Your task to perform on an android device: What's the weather? Image 0: 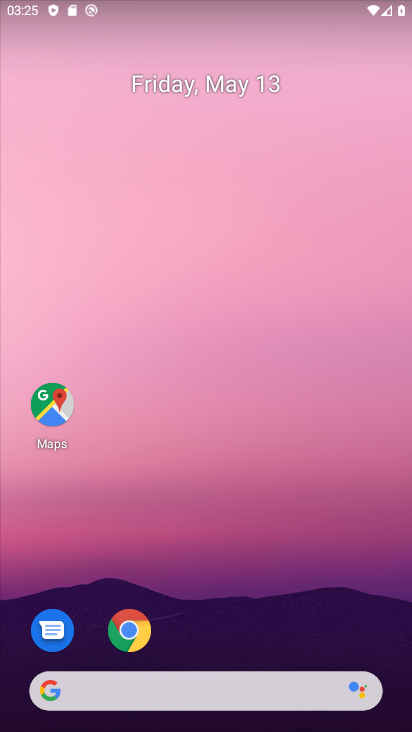
Step 0: click (201, 689)
Your task to perform on an android device: What's the weather? Image 1: 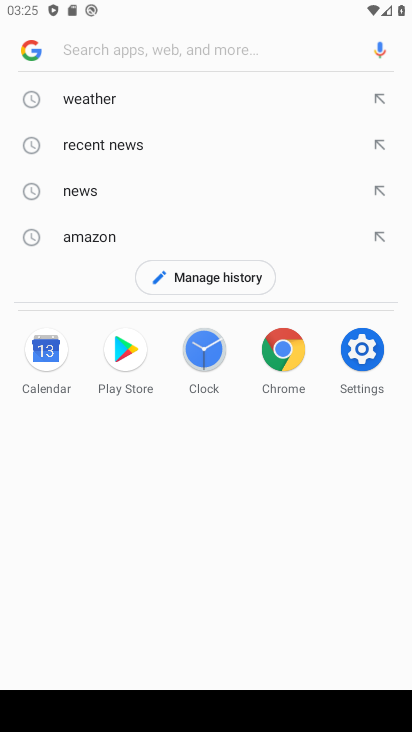
Step 1: click (96, 97)
Your task to perform on an android device: What's the weather? Image 2: 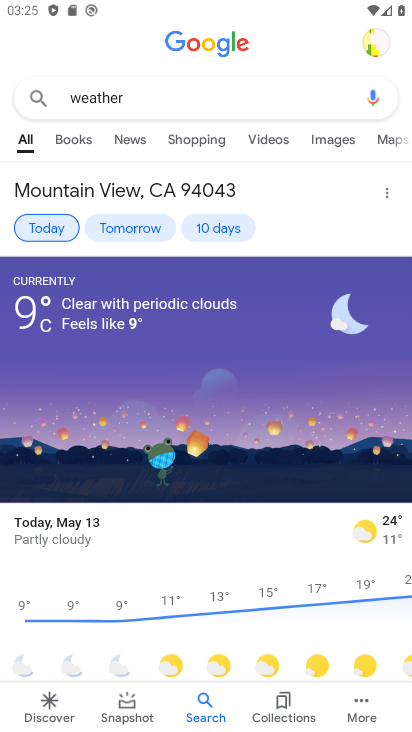
Step 2: task complete